Your task to perform on an android device: Go to Yahoo.com Image 0: 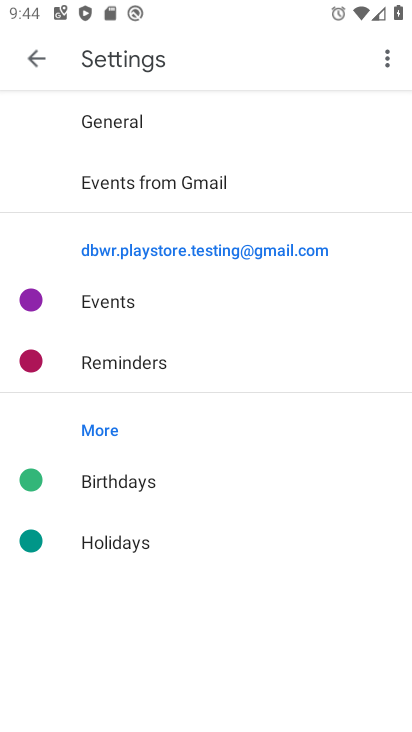
Step 0: drag from (210, 614) to (298, 3)
Your task to perform on an android device: Go to Yahoo.com Image 1: 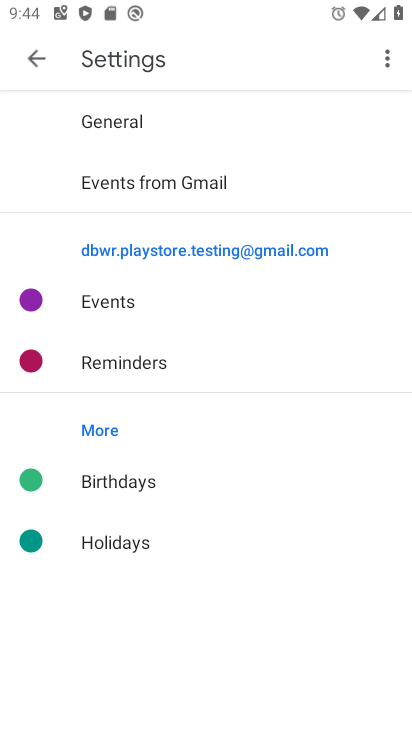
Step 1: press home button
Your task to perform on an android device: Go to Yahoo.com Image 2: 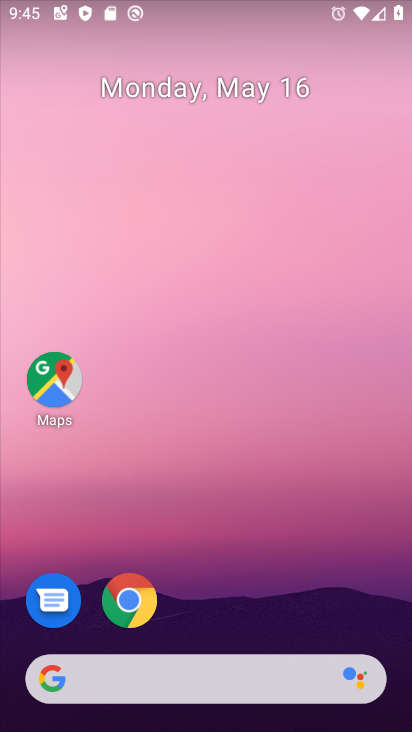
Step 2: drag from (187, 633) to (232, 272)
Your task to perform on an android device: Go to Yahoo.com Image 3: 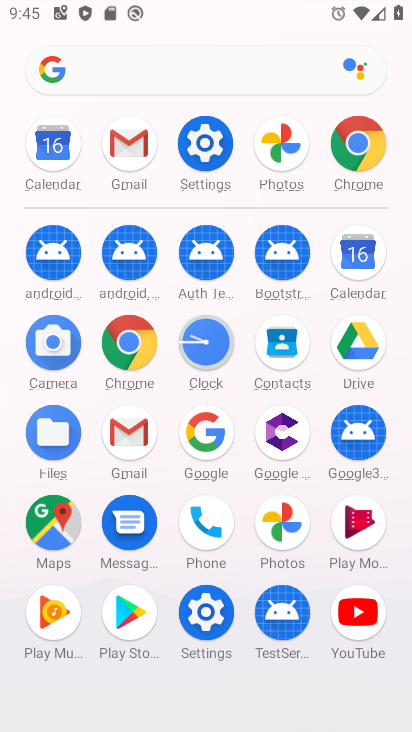
Step 3: click (193, 67)
Your task to perform on an android device: Go to Yahoo.com Image 4: 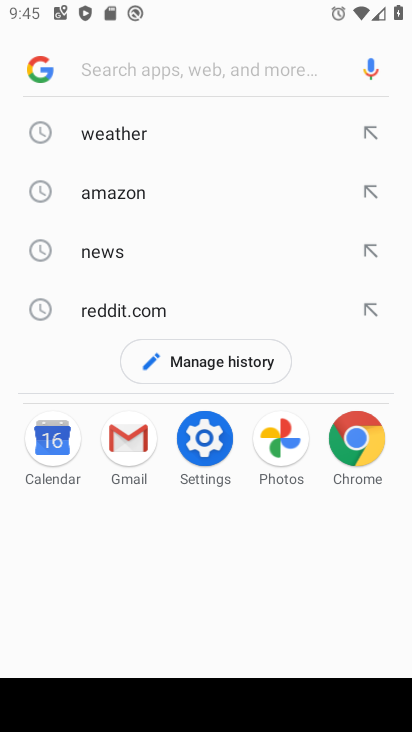
Step 4: type "yahoo"
Your task to perform on an android device: Go to Yahoo.com Image 5: 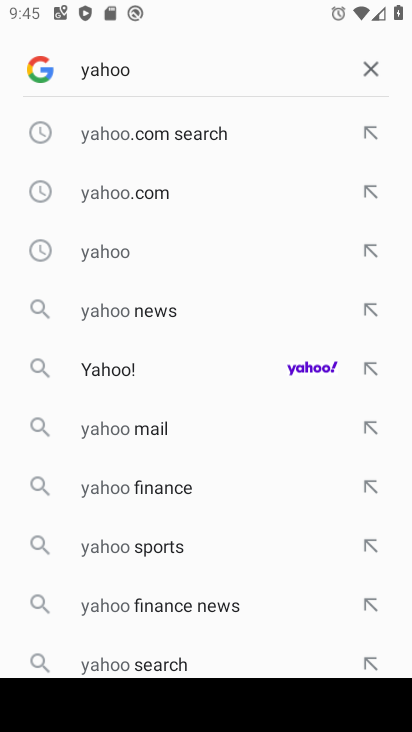
Step 5: click (116, 199)
Your task to perform on an android device: Go to Yahoo.com Image 6: 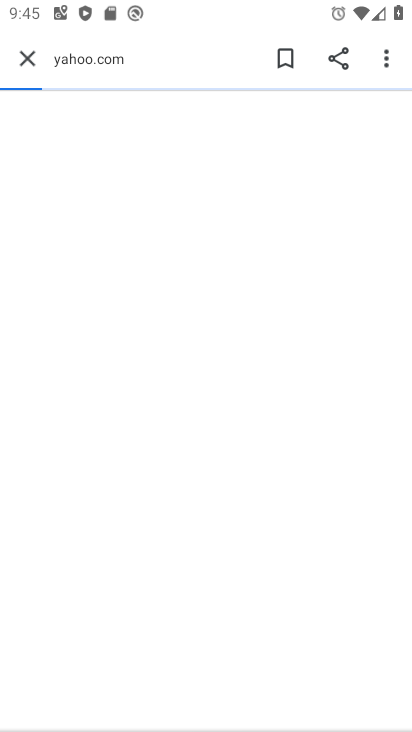
Step 6: task complete